Your task to perform on an android device: Turn on the flashlight Image 0: 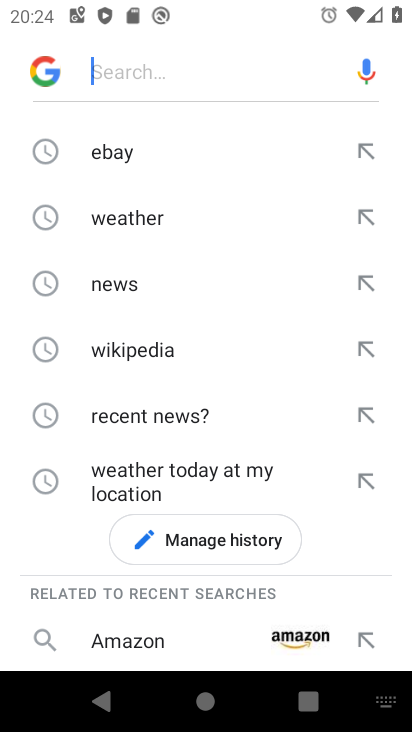
Step 0: press home button
Your task to perform on an android device: Turn on the flashlight Image 1: 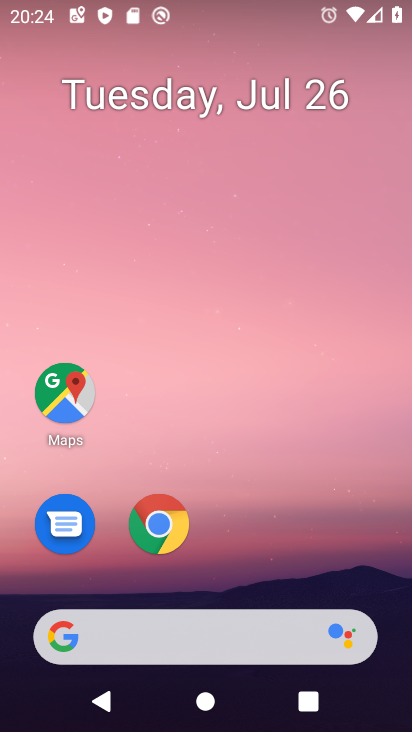
Step 1: drag from (280, 551) to (253, 53)
Your task to perform on an android device: Turn on the flashlight Image 2: 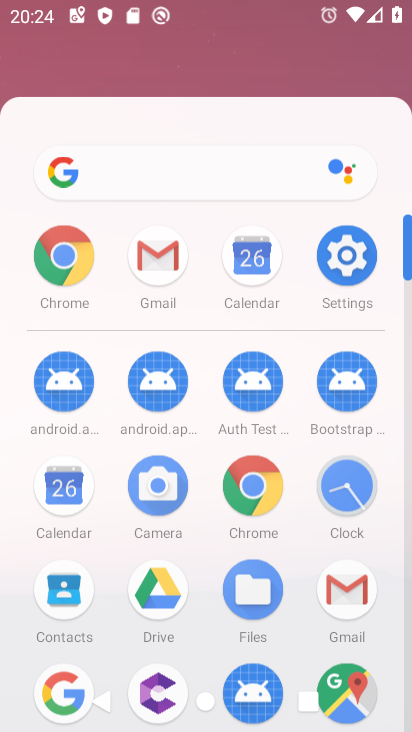
Step 2: click (255, 33)
Your task to perform on an android device: Turn on the flashlight Image 3: 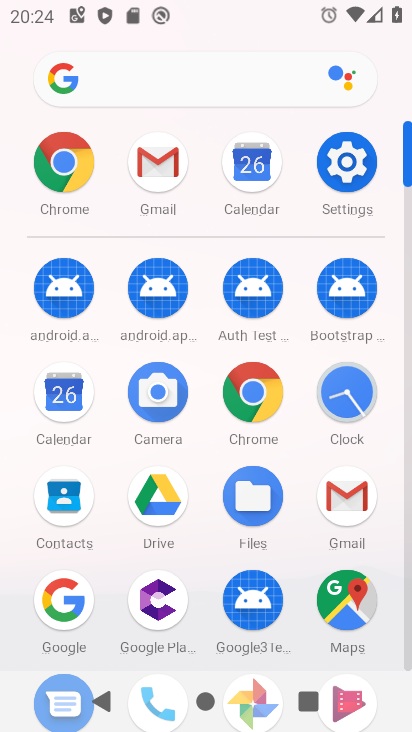
Step 3: click (340, 162)
Your task to perform on an android device: Turn on the flashlight Image 4: 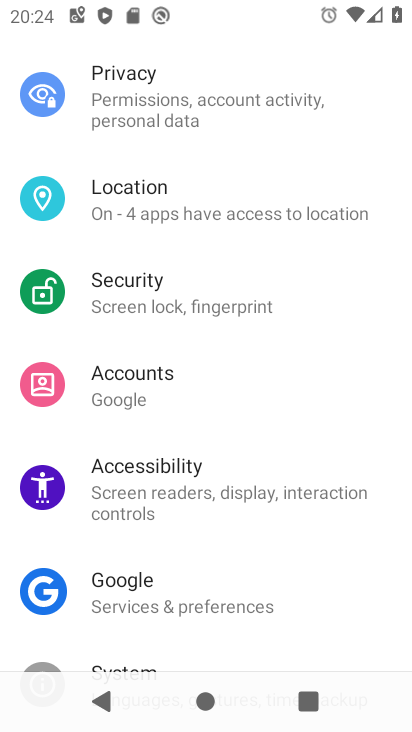
Step 4: drag from (232, 175) to (276, 662)
Your task to perform on an android device: Turn on the flashlight Image 5: 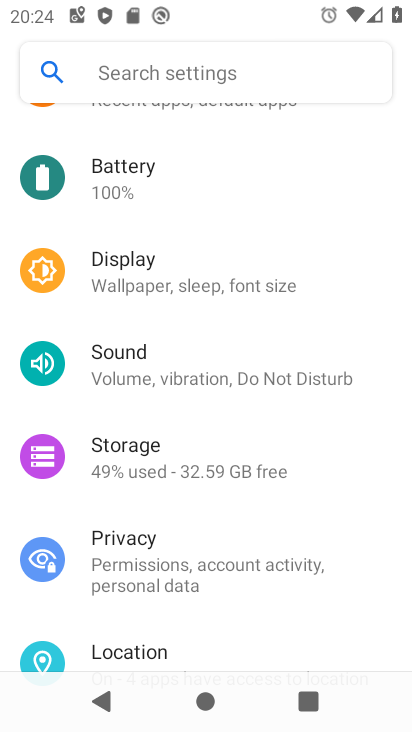
Step 5: drag from (233, 172) to (254, 703)
Your task to perform on an android device: Turn on the flashlight Image 6: 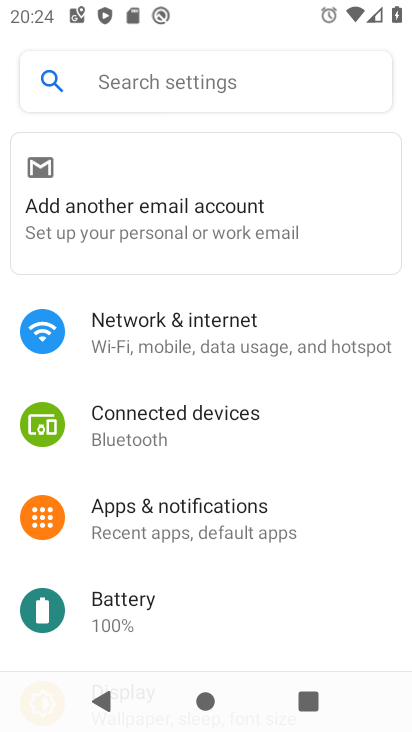
Step 6: click (245, 70)
Your task to perform on an android device: Turn on the flashlight Image 7: 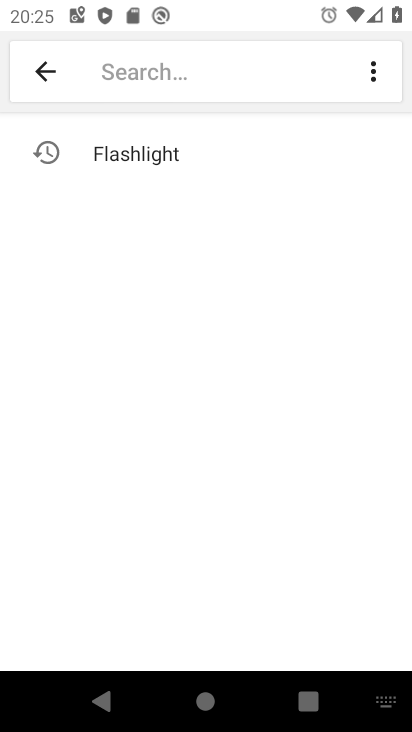
Step 7: click (153, 142)
Your task to perform on an android device: Turn on the flashlight Image 8: 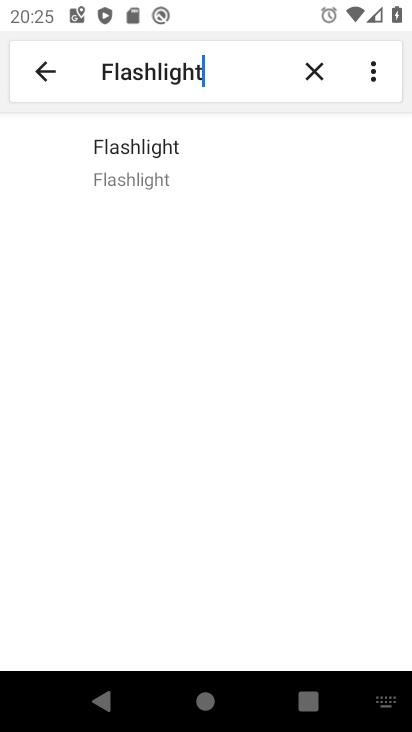
Step 8: click (149, 147)
Your task to perform on an android device: Turn on the flashlight Image 9: 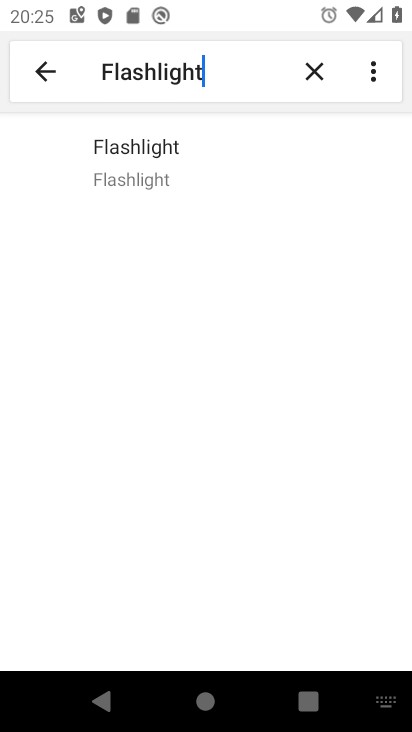
Step 9: task complete